Your task to perform on an android device: open chrome privacy settings Image 0: 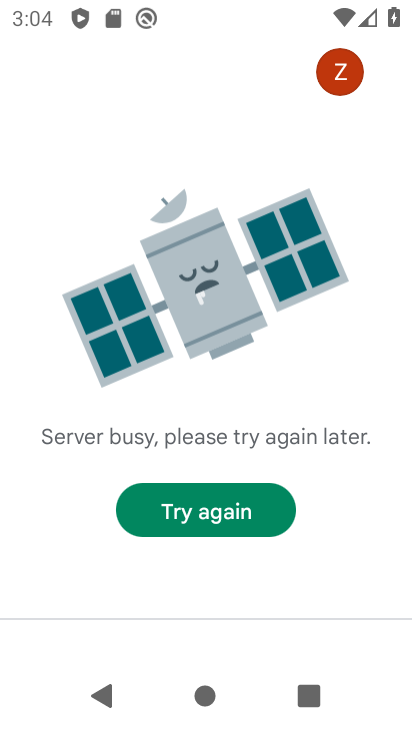
Step 0: press home button
Your task to perform on an android device: open chrome privacy settings Image 1: 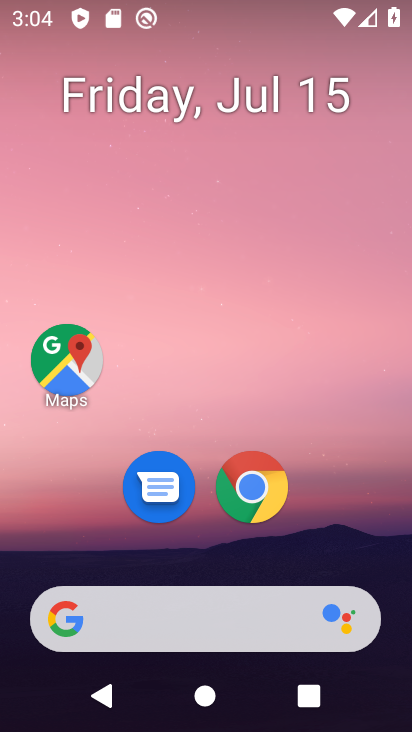
Step 1: drag from (163, 428) to (78, 128)
Your task to perform on an android device: open chrome privacy settings Image 2: 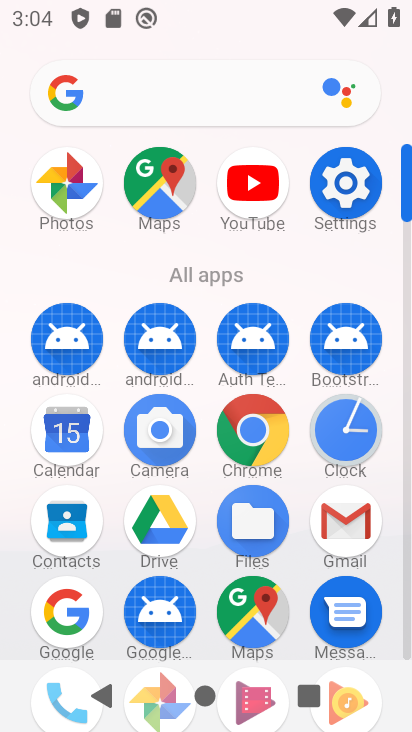
Step 2: click (223, 440)
Your task to perform on an android device: open chrome privacy settings Image 3: 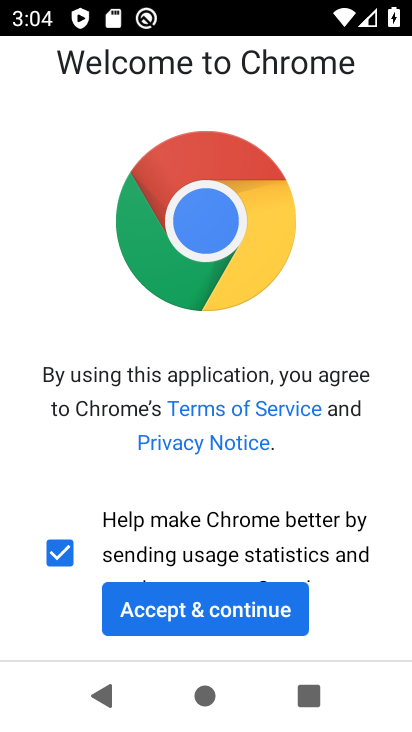
Step 3: click (196, 622)
Your task to perform on an android device: open chrome privacy settings Image 4: 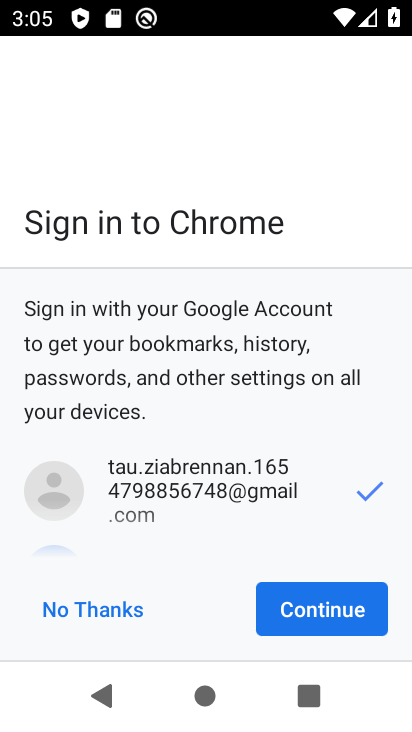
Step 4: click (311, 608)
Your task to perform on an android device: open chrome privacy settings Image 5: 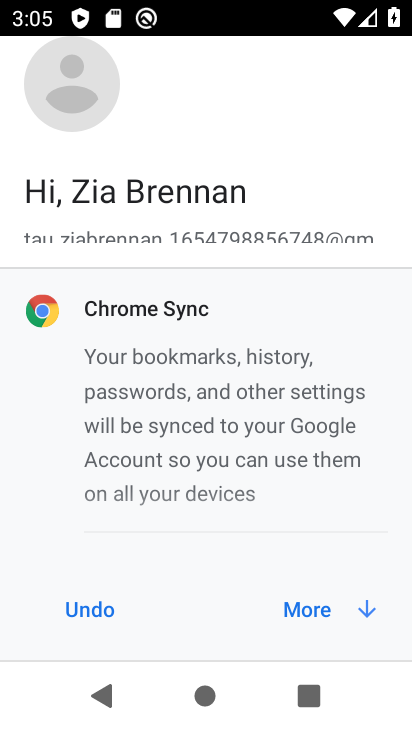
Step 5: click (302, 628)
Your task to perform on an android device: open chrome privacy settings Image 6: 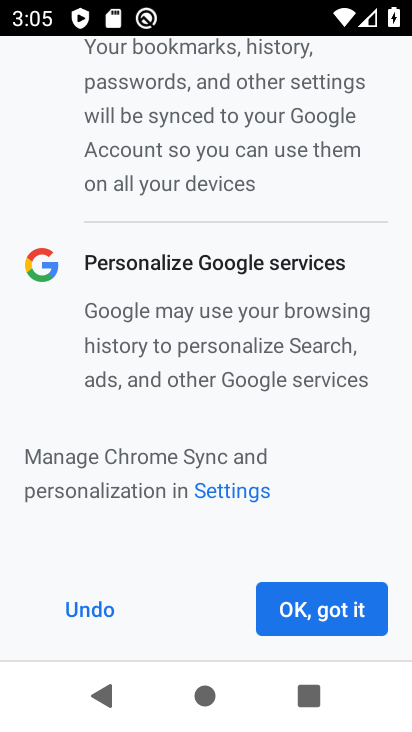
Step 6: click (298, 615)
Your task to perform on an android device: open chrome privacy settings Image 7: 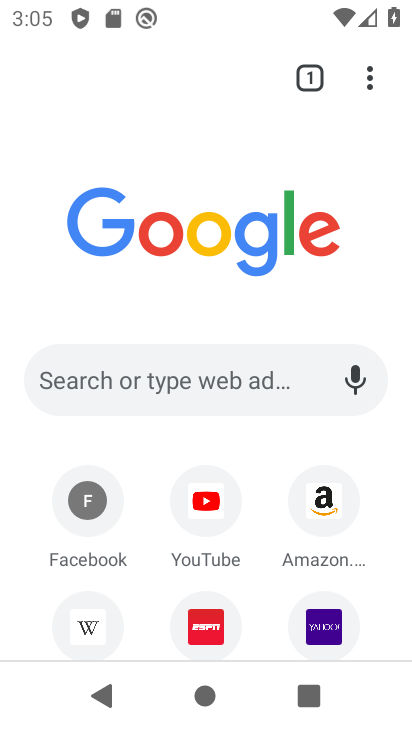
Step 7: click (374, 84)
Your task to perform on an android device: open chrome privacy settings Image 8: 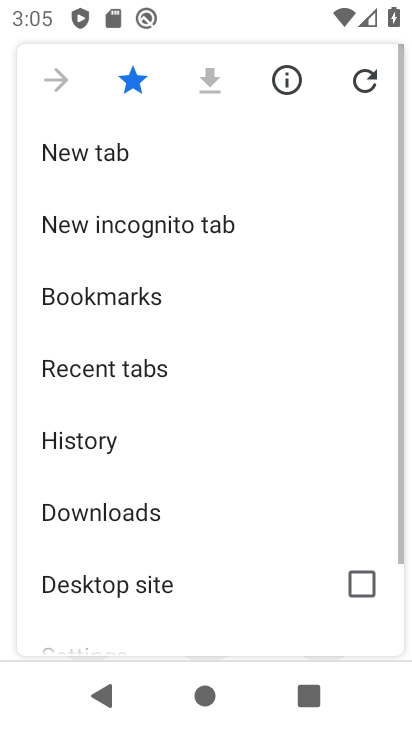
Step 8: click (374, 84)
Your task to perform on an android device: open chrome privacy settings Image 9: 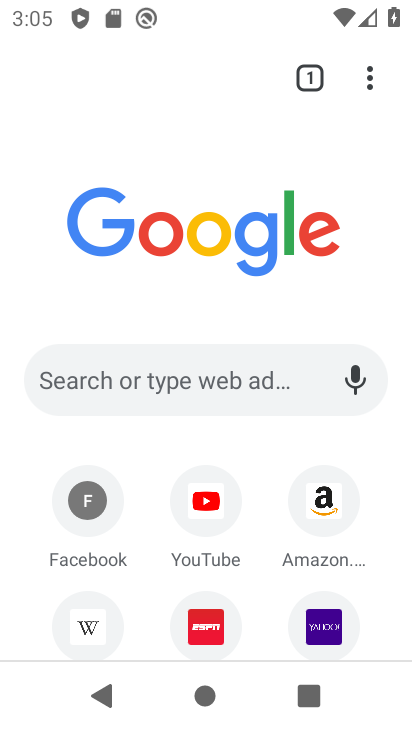
Step 9: click (368, 82)
Your task to perform on an android device: open chrome privacy settings Image 10: 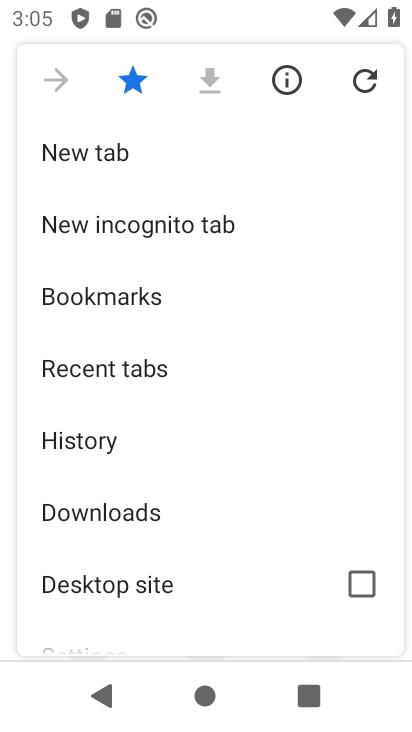
Step 10: drag from (187, 499) to (197, 211)
Your task to perform on an android device: open chrome privacy settings Image 11: 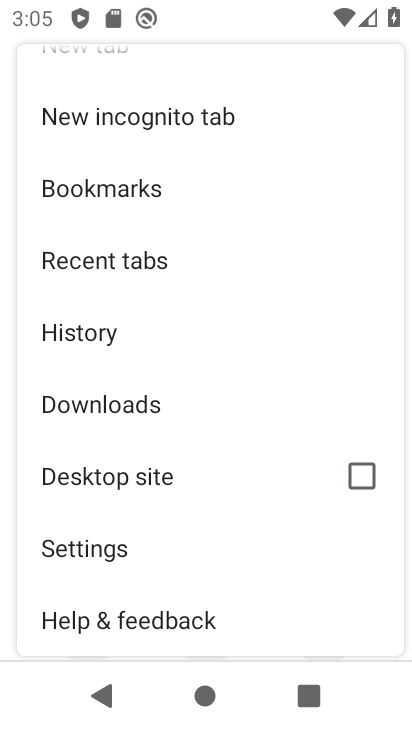
Step 11: click (123, 552)
Your task to perform on an android device: open chrome privacy settings Image 12: 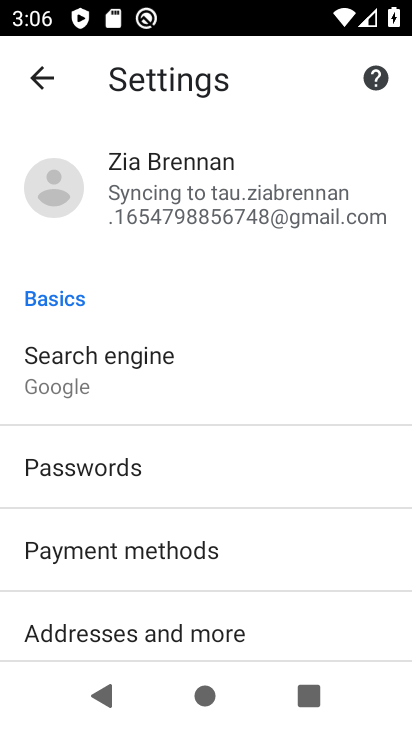
Step 12: drag from (117, 542) to (118, 177)
Your task to perform on an android device: open chrome privacy settings Image 13: 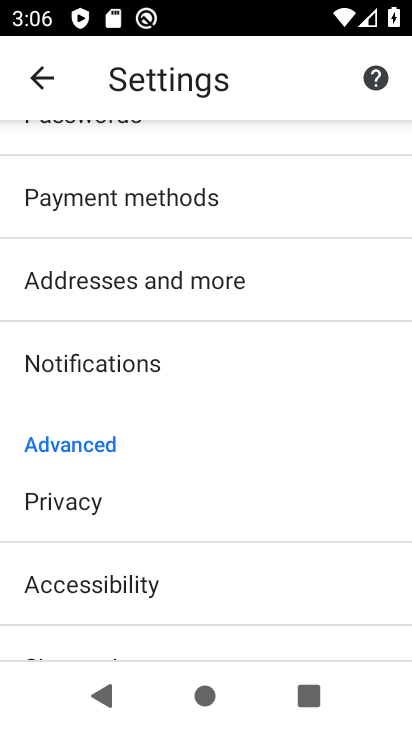
Step 13: click (65, 507)
Your task to perform on an android device: open chrome privacy settings Image 14: 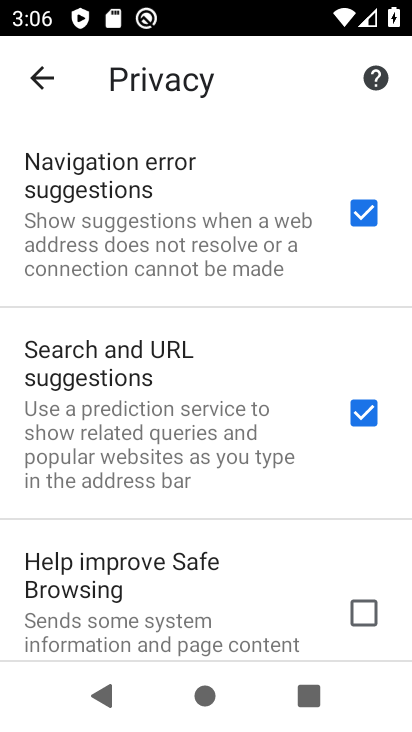
Step 14: task complete